Your task to perform on an android device: open app "Google Photos" Image 0: 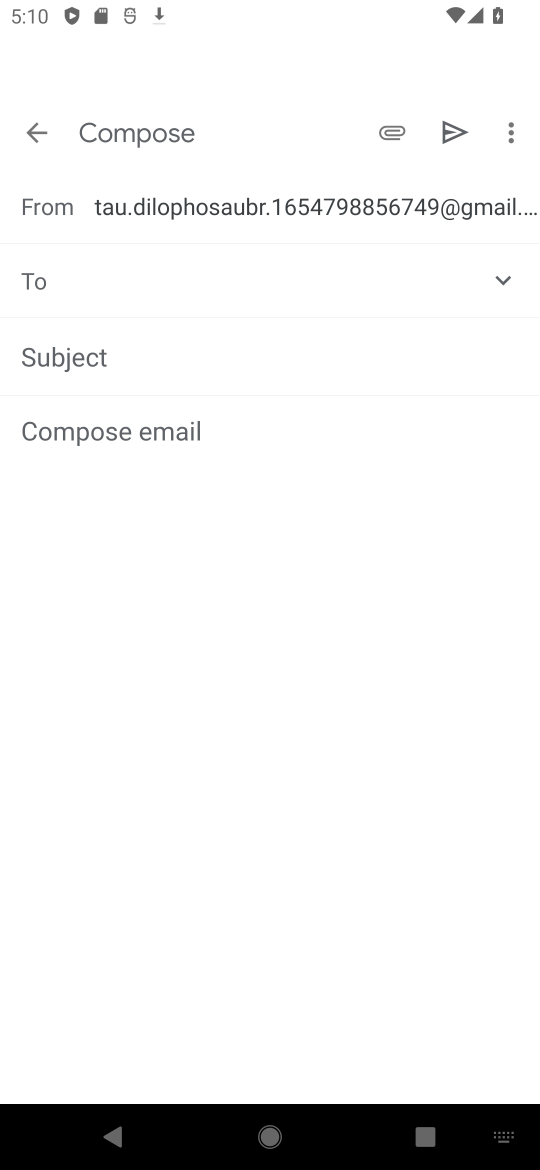
Step 0: press home button
Your task to perform on an android device: open app "Google Photos" Image 1: 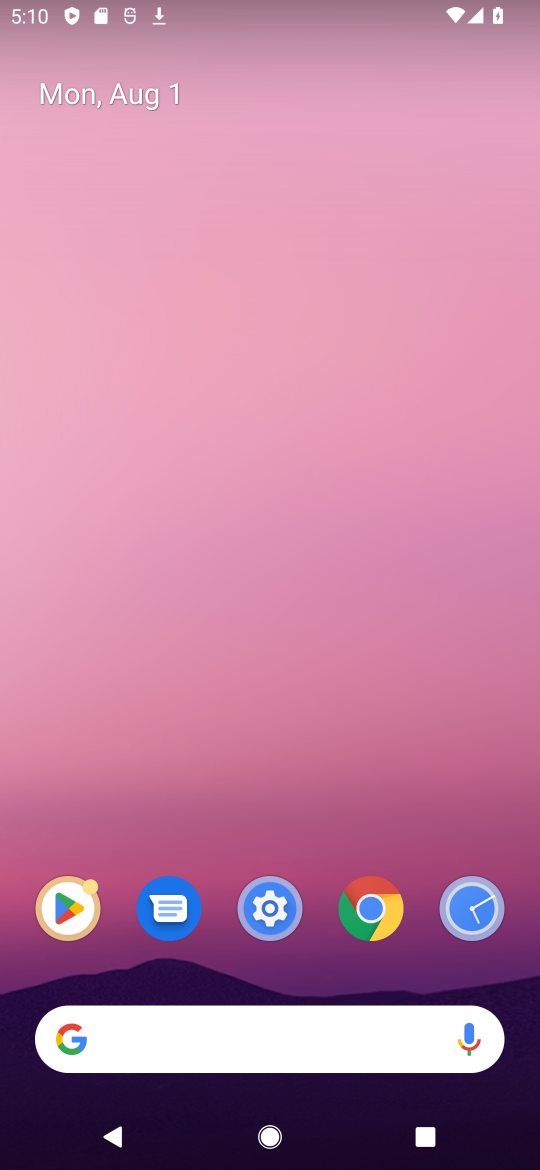
Step 1: click (57, 895)
Your task to perform on an android device: open app "Google Photos" Image 2: 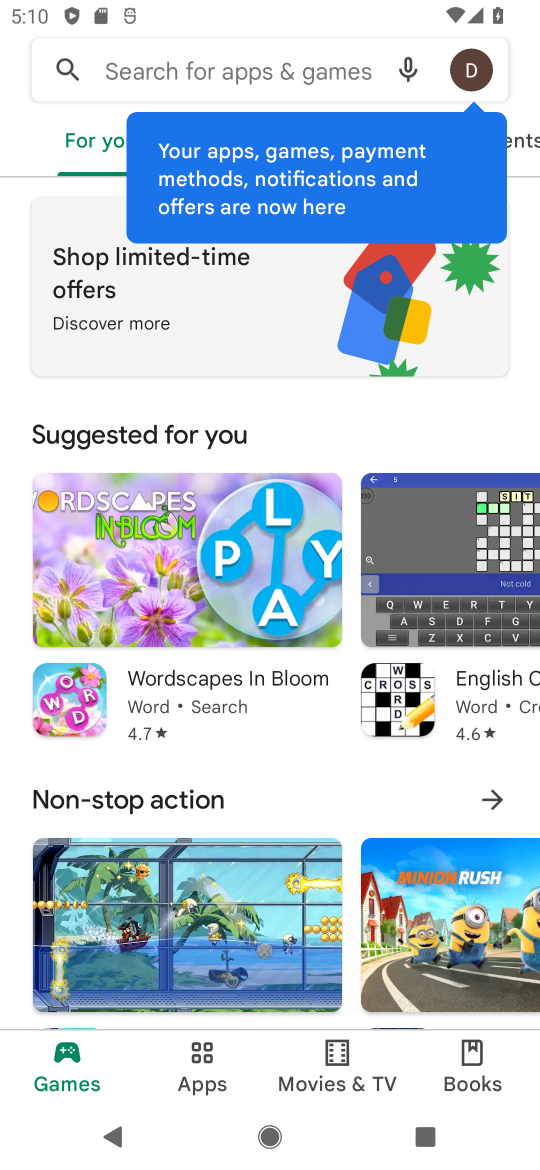
Step 2: click (257, 75)
Your task to perform on an android device: open app "Google Photos" Image 3: 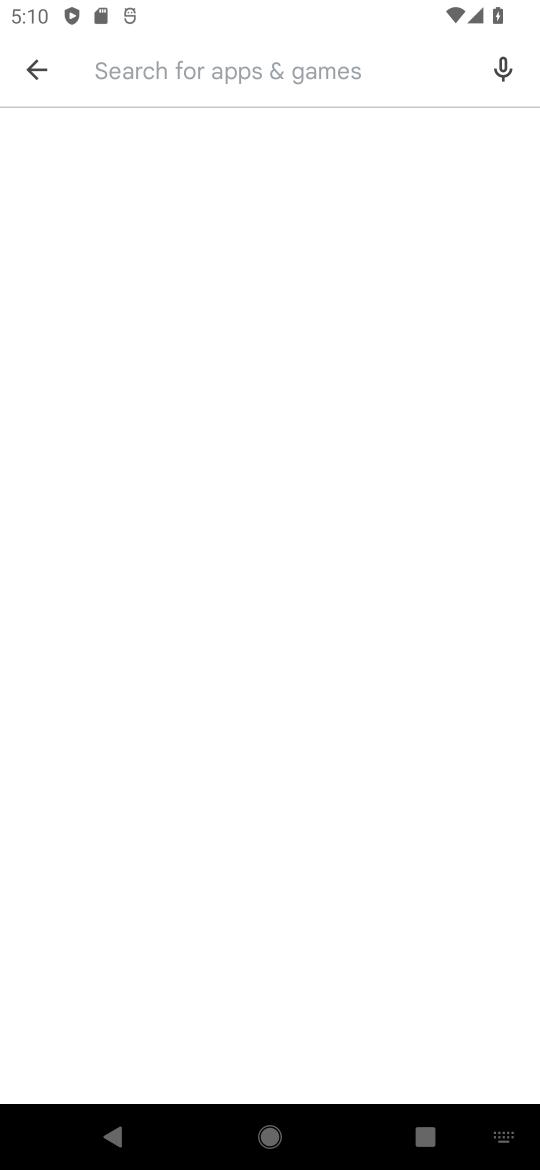
Step 3: type "google photos"
Your task to perform on an android device: open app "Google Photos" Image 4: 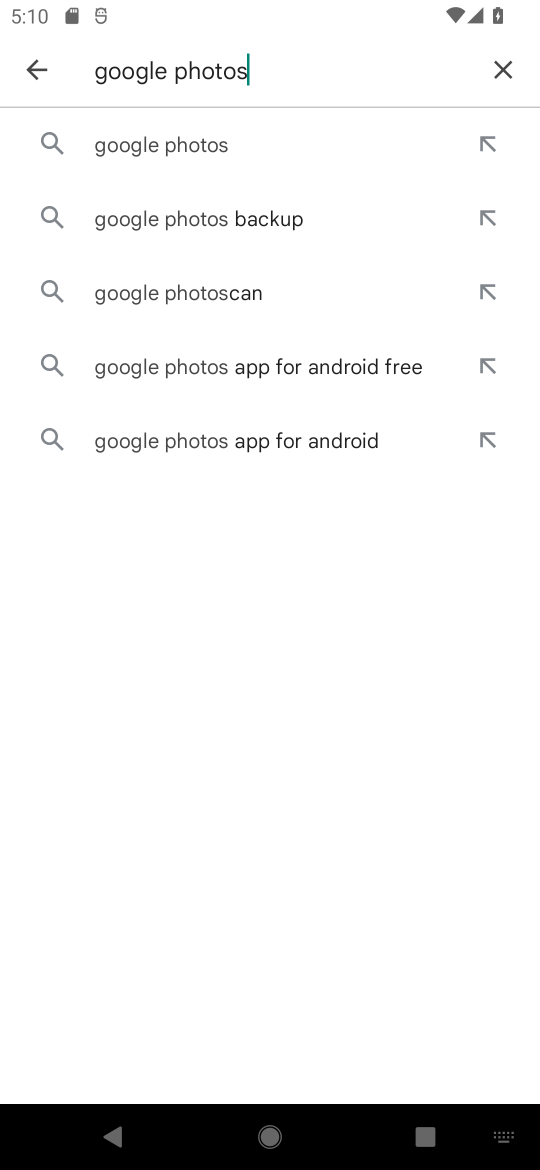
Step 4: click (151, 151)
Your task to perform on an android device: open app "Google Photos" Image 5: 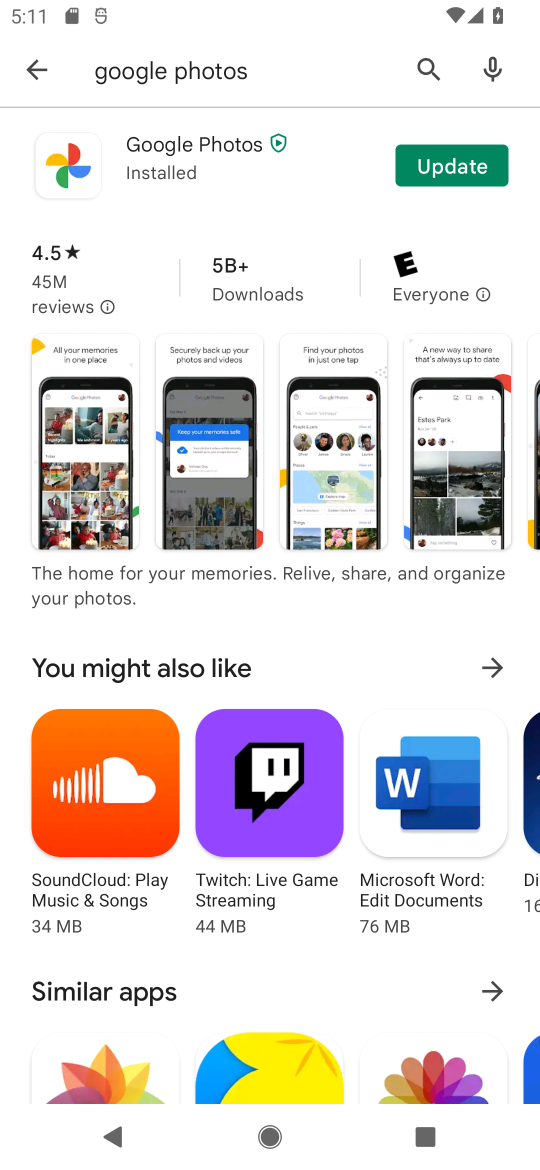
Step 5: click (314, 171)
Your task to perform on an android device: open app "Google Photos" Image 6: 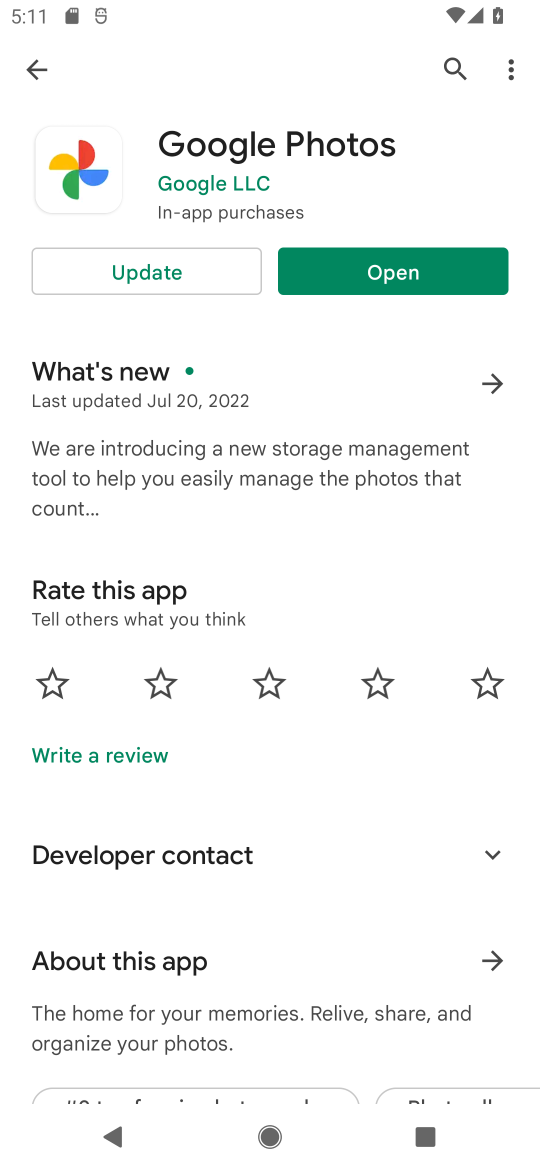
Step 6: click (383, 274)
Your task to perform on an android device: open app "Google Photos" Image 7: 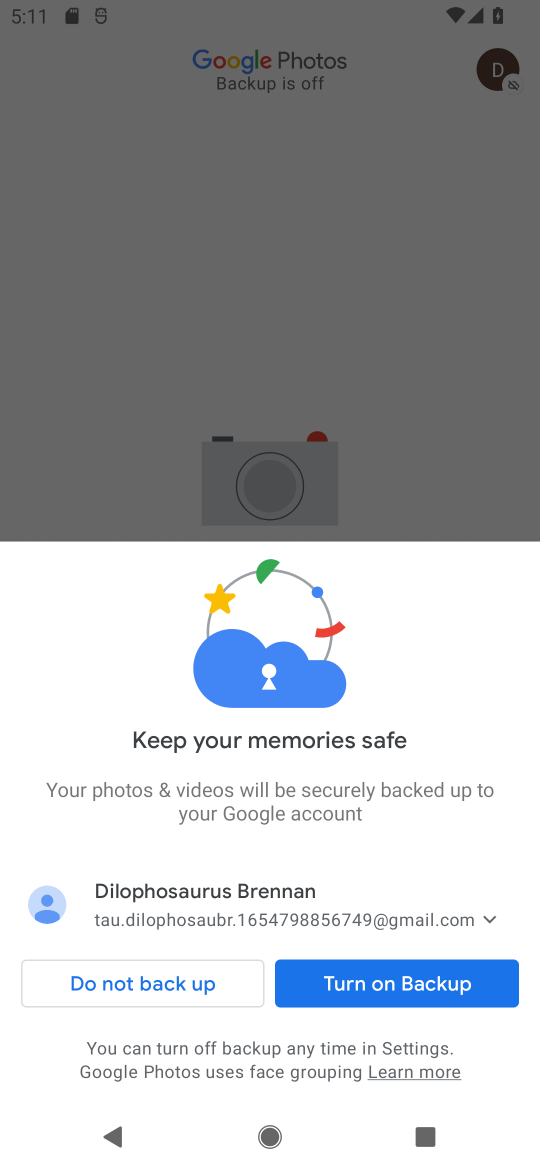
Step 7: click (177, 993)
Your task to perform on an android device: open app "Google Photos" Image 8: 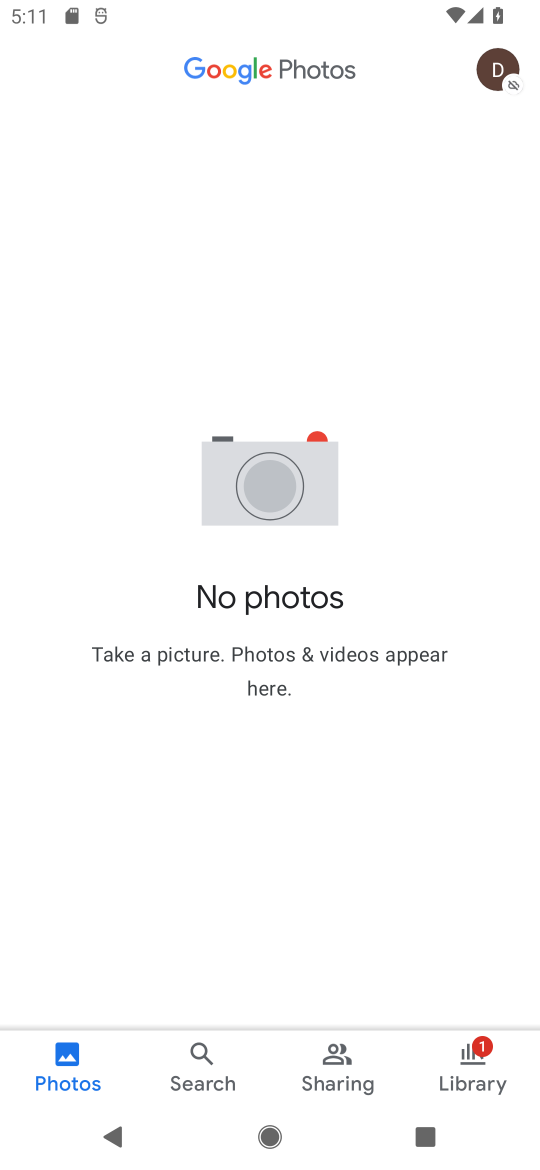
Step 8: task complete